Your task to perform on an android device: Open calendar and show me the second week of next month Image 0: 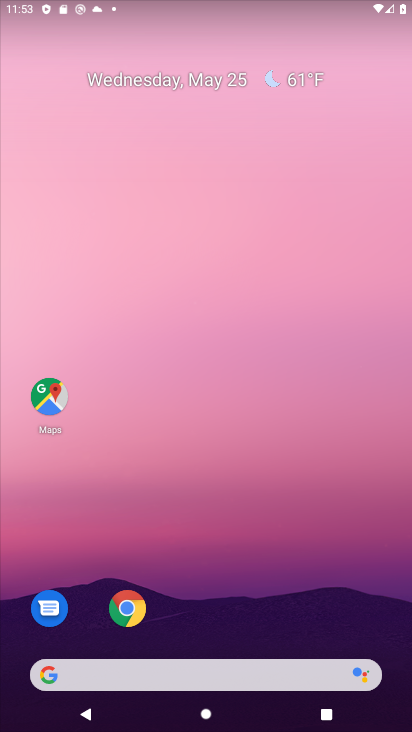
Step 0: drag from (377, 619) to (341, 42)
Your task to perform on an android device: Open calendar and show me the second week of next month Image 1: 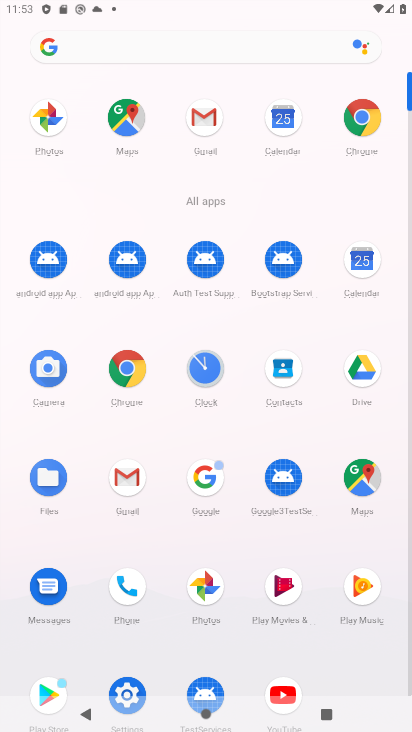
Step 1: click (410, 686)
Your task to perform on an android device: Open calendar and show me the second week of next month Image 2: 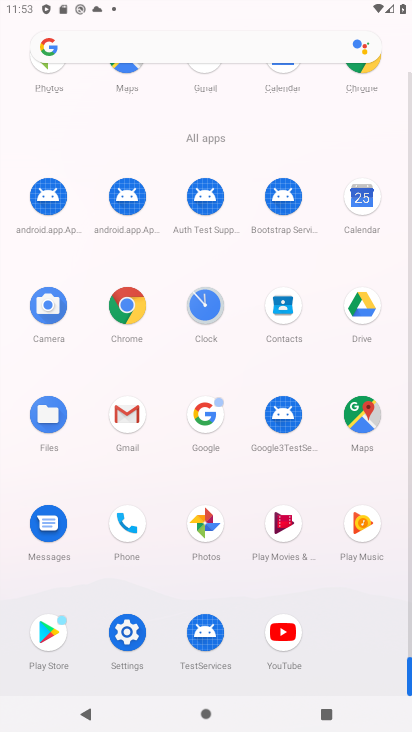
Step 2: click (354, 191)
Your task to perform on an android device: Open calendar and show me the second week of next month Image 3: 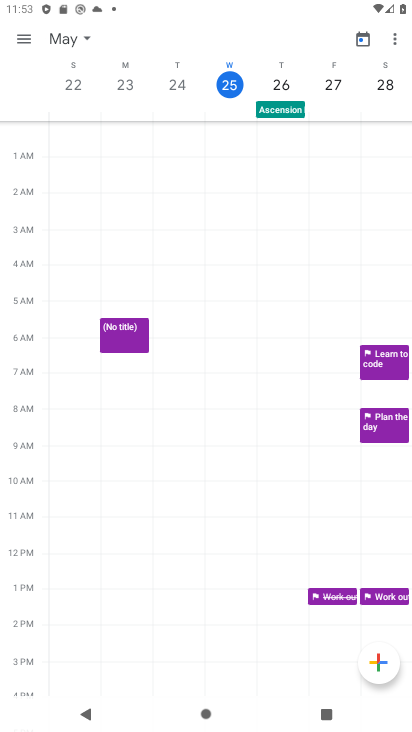
Step 3: click (28, 36)
Your task to perform on an android device: Open calendar and show me the second week of next month Image 4: 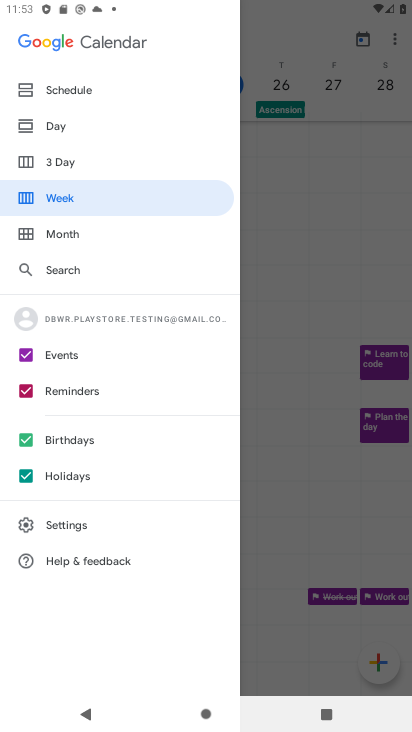
Step 4: click (82, 199)
Your task to perform on an android device: Open calendar and show me the second week of next month Image 5: 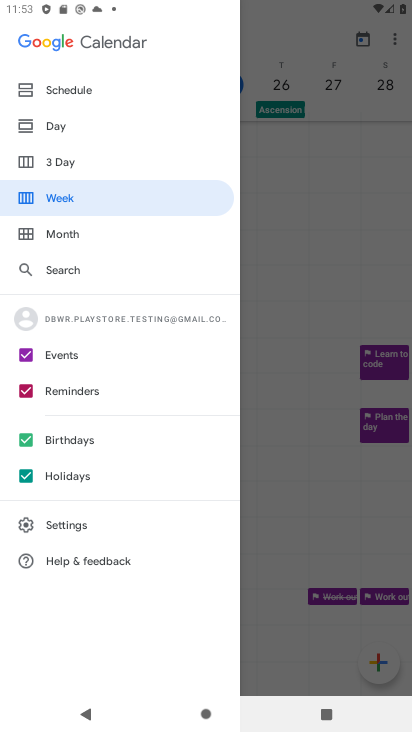
Step 5: click (303, 256)
Your task to perform on an android device: Open calendar and show me the second week of next month Image 6: 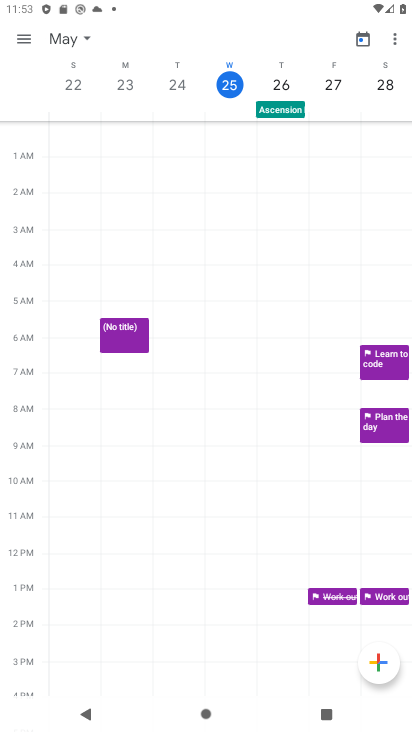
Step 6: click (86, 35)
Your task to perform on an android device: Open calendar and show me the second week of next month Image 7: 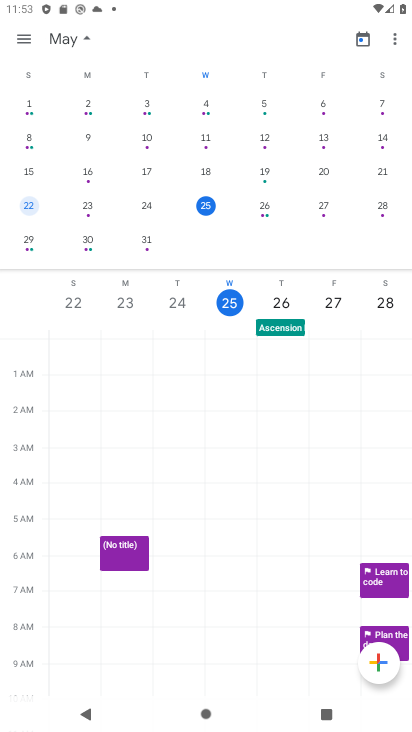
Step 7: drag from (387, 202) to (0, 142)
Your task to perform on an android device: Open calendar and show me the second week of next month Image 8: 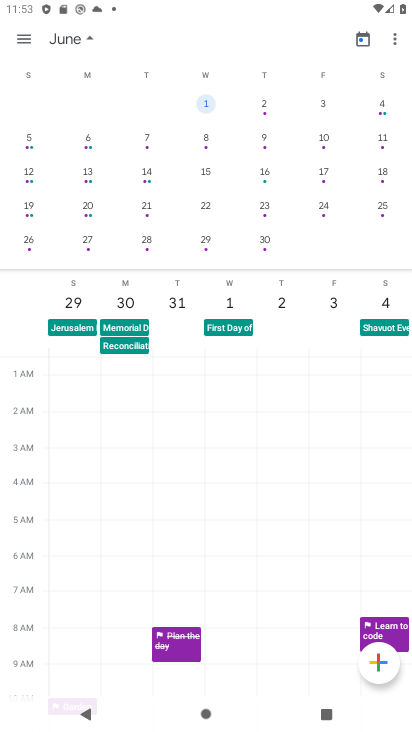
Step 8: click (26, 172)
Your task to perform on an android device: Open calendar and show me the second week of next month Image 9: 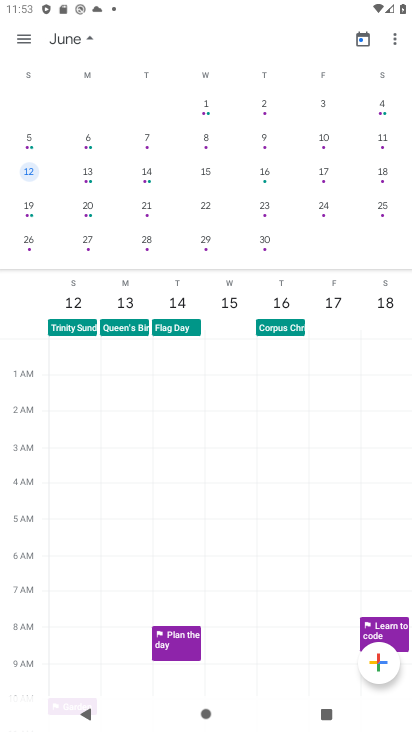
Step 9: task complete